Your task to perform on an android device: Open Maps and search for coffee Image 0: 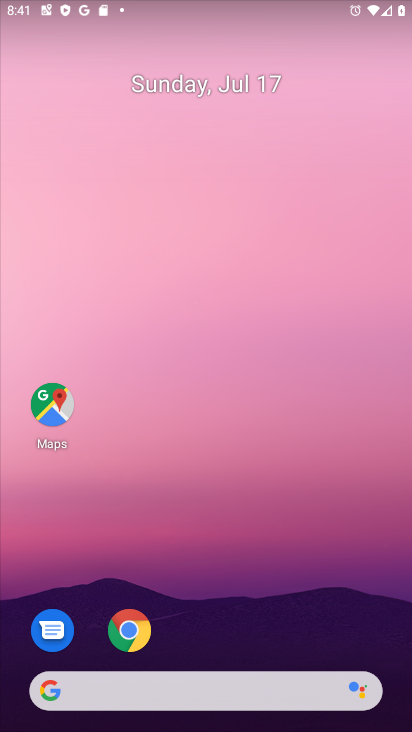
Step 0: click (28, 392)
Your task to perform on an android device: Open Maps and search for coffee Image 1: 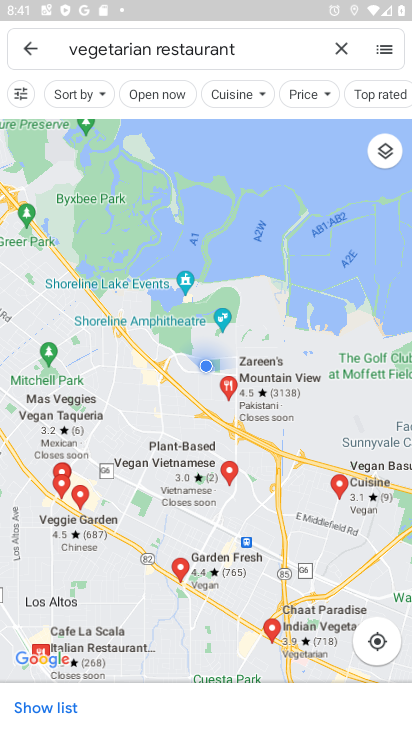
Step 1: click (343, 51)
Your task to perform on an android device: Open Maps and search for coffee Image 2: 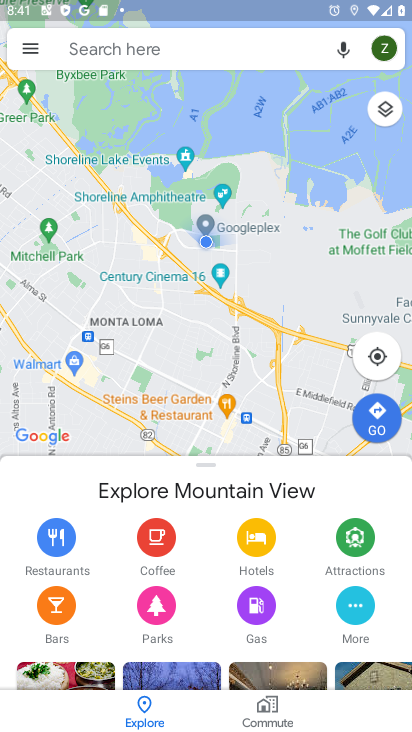
Step 2: click (231, 51)
Your task to perform on an android device: Open Maps and search for coffee Image 3: 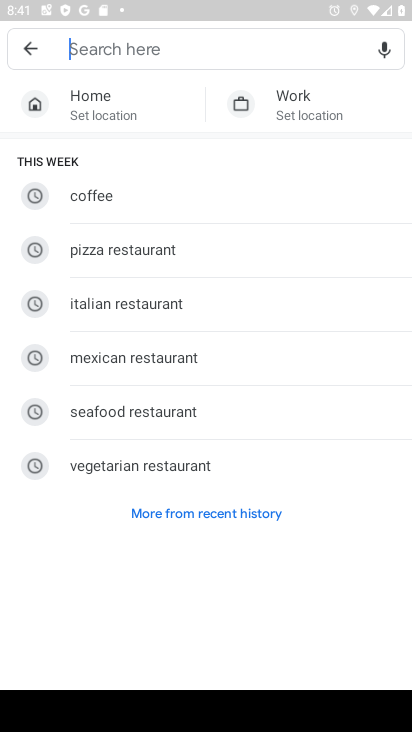
Step 3: click (97, 192)
Your task to perform on an android device: Open Maps and search for coffee Image 4: 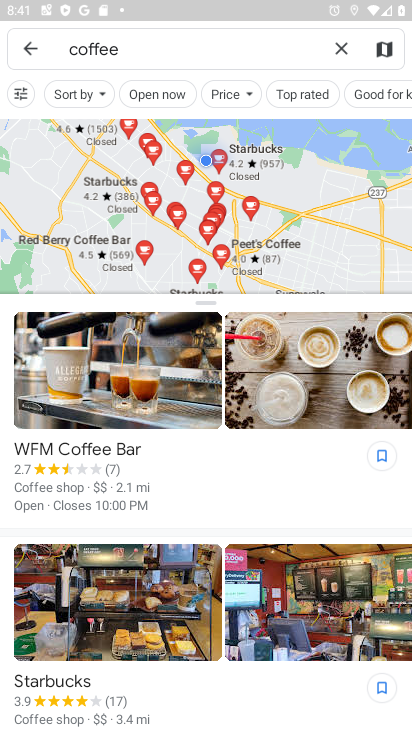
Step 4: task complete